Your task to perform on an android device: Is it going to rain this weekend? Image 0: 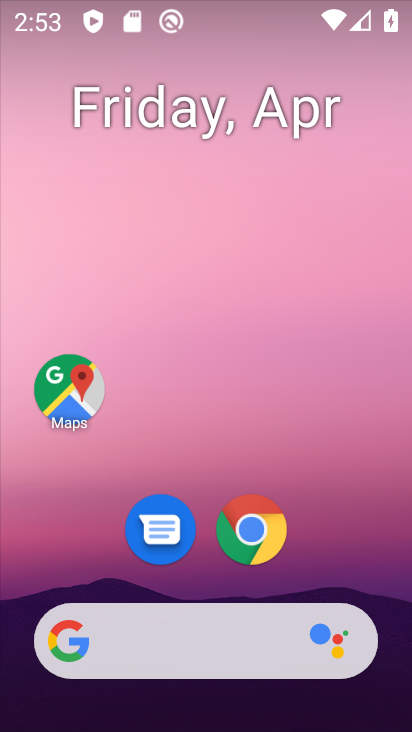
Step 0: drag from (247, 603) to (239, 47)
Your task to perform on an android device: Is it going to rain this weekend? Image 1: 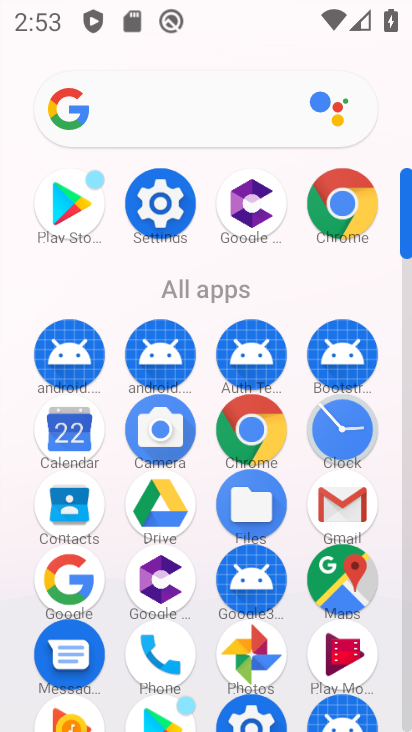
Step 1: drag from (304, 508) to (329, 238)
Your task to perform on an android device: Is it going to rain this weekend? Image 2: 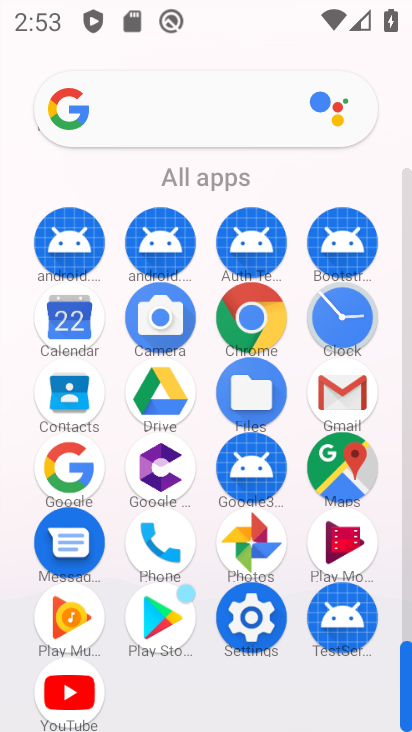
Step 2: click (66, 480)
Your task to perform on an android device: Is it going to rain this weekend? Image 3: 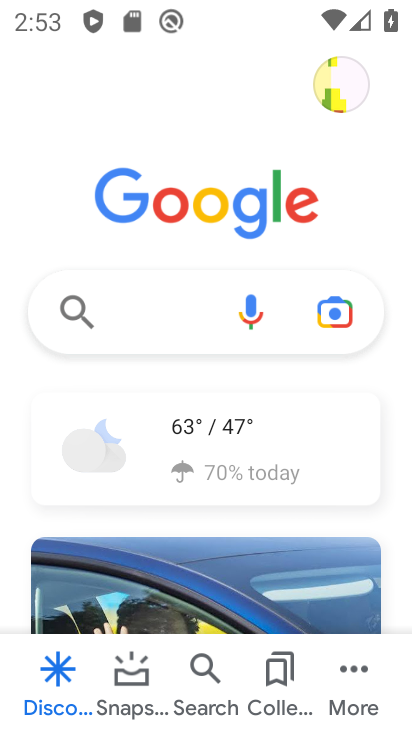
Step 3: click (179, 322)
Your task to perform on an android device: Is it going to rain this weekend? Image 4: 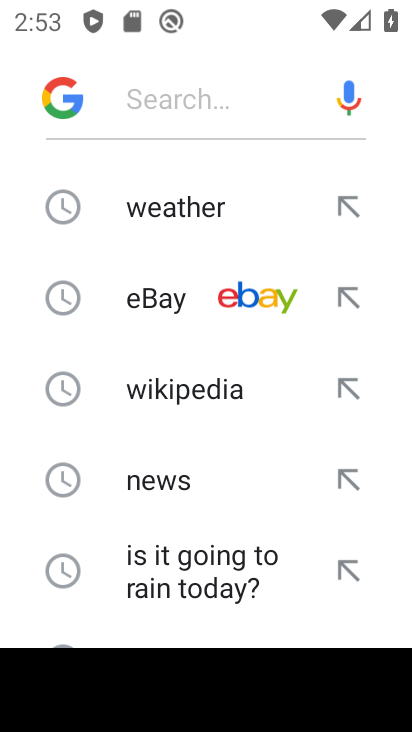
Step 4: click (282, 206)
Your task to perform on an android device: Is it going to rain this weekend? Image 5: 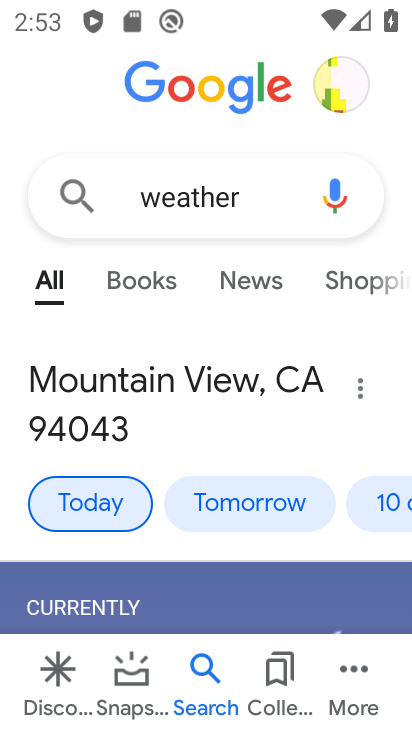
Step 5: task complete